Your task to perform on an android device: Turn on the flashlight Image 0: 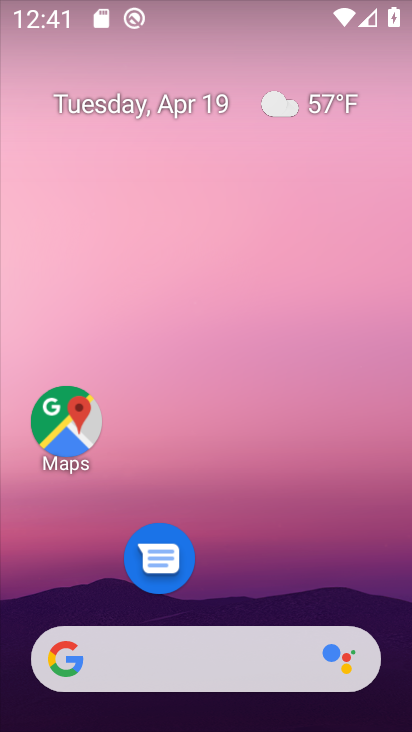
Step 0: drag from (243, 573) to (159, 190)
Your task to perform on an android device: Turn on the flashlight Image 1: 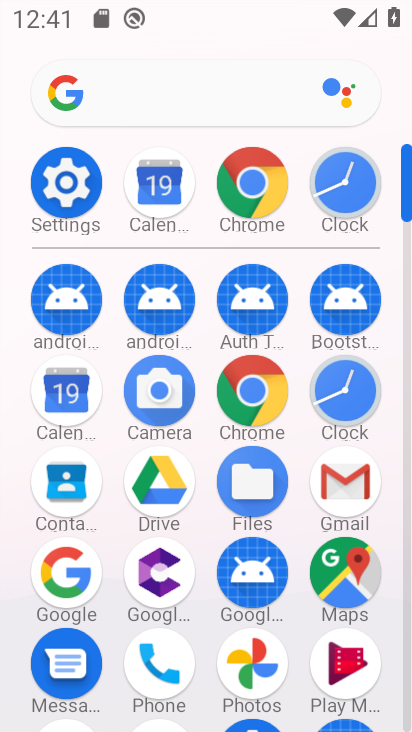
Step 1: click (65, 172)
Your task to perform on an android device: Turn on the flashlight Image 2: 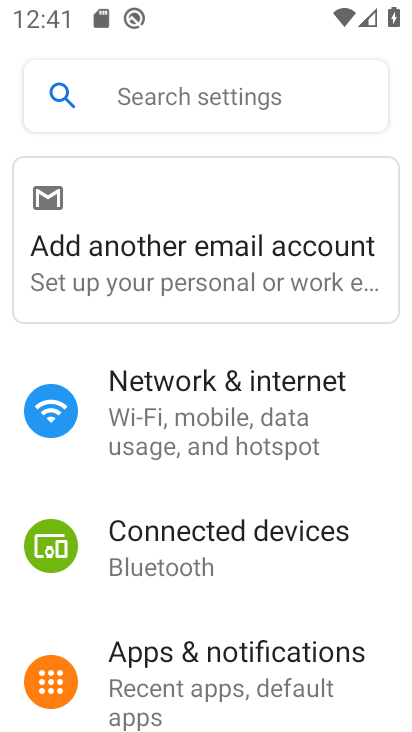
Step 2: click (238, 93)
Your task to perform on an android device: Turn on the flashlight Image 3: 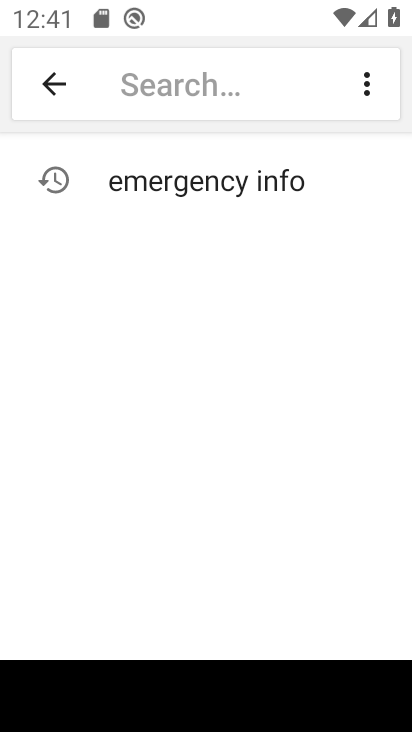
Step 3: type "flahlight"
Your task to perform on an android device: Turn on the flashlight Image 4: 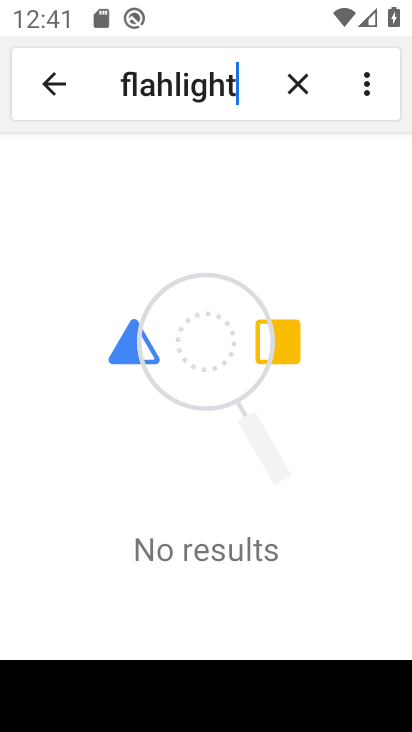
Step 4: click (154, 86)
Your task to perform on an android device: Turn on the flashlight Image 5: 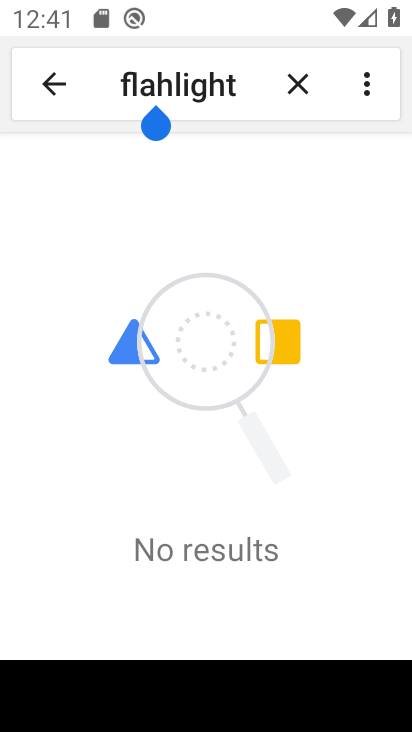
Step 5: type "s"
Your task to perform on an android device: Turn on the flashlight Image 6: 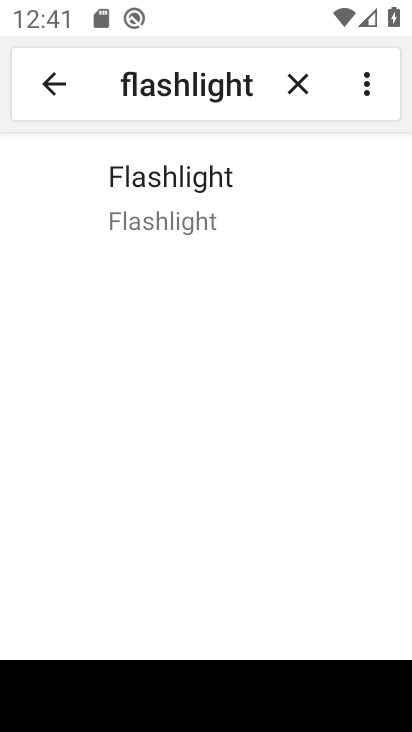
Step 6: click (116, 208)
Your task to perform on an android device: Turn on the flashlight Image 7: 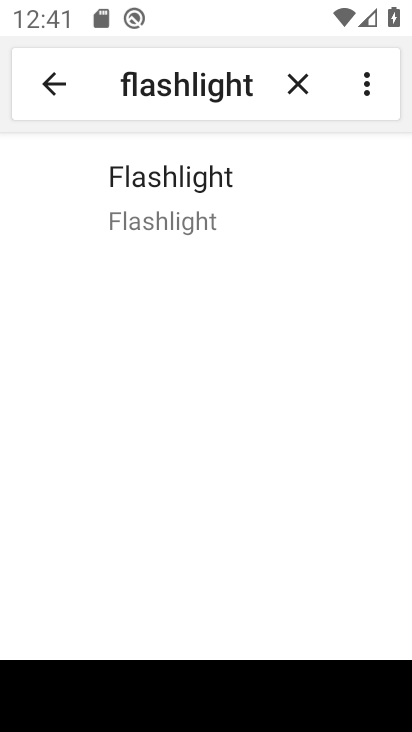
Step 7: click (116, 208)
Your task to perform on an android device: Turn on the flashlight Image 8: 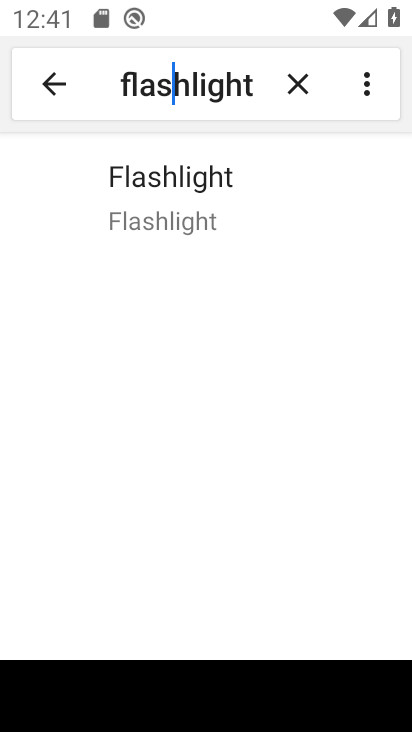
Step 8: click (116, 208)
Your task to perform on an android device: Turn on the flashlight Image 9: 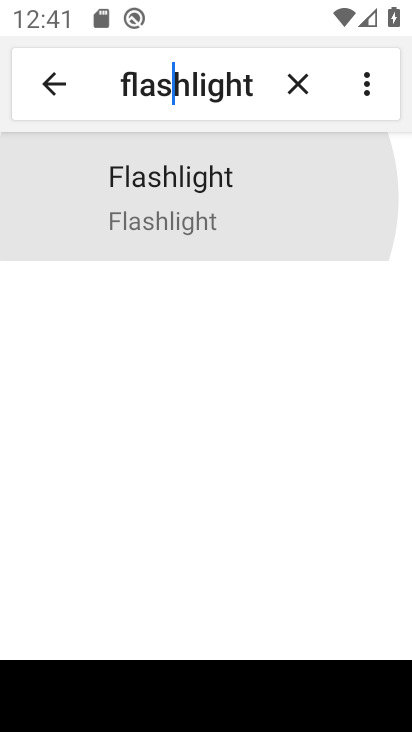
Step 9: click (116, 208)
Your task to perform on an android device: Turn on the flashlight Image 10: 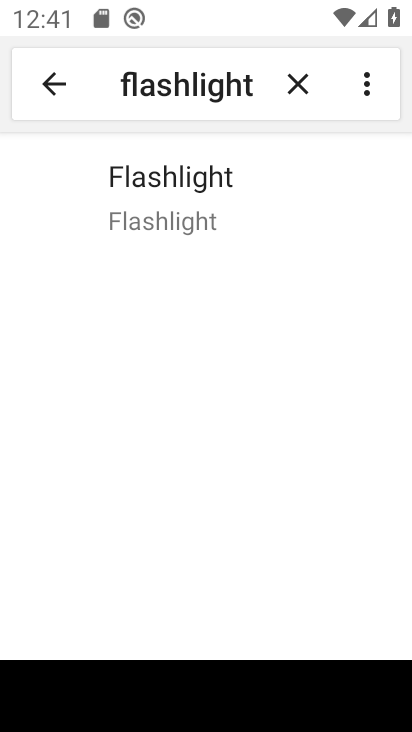
Step 10: task complete